Your task to perform on an android device: change the clock display to show seconds Image 0: 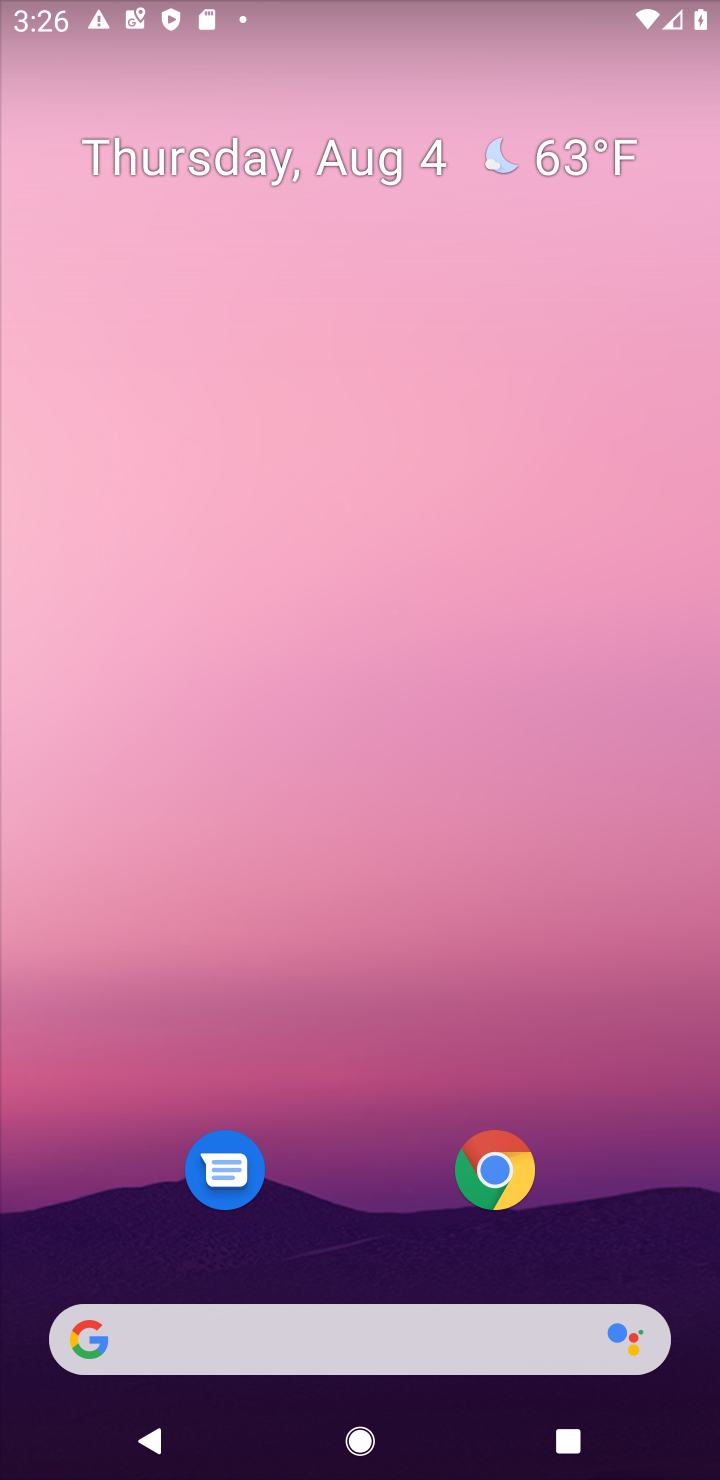
Step 0: drag from (604, 739) to (570, 265)
Your task to perform on an android device: change the clock display to show seconds Image 1: 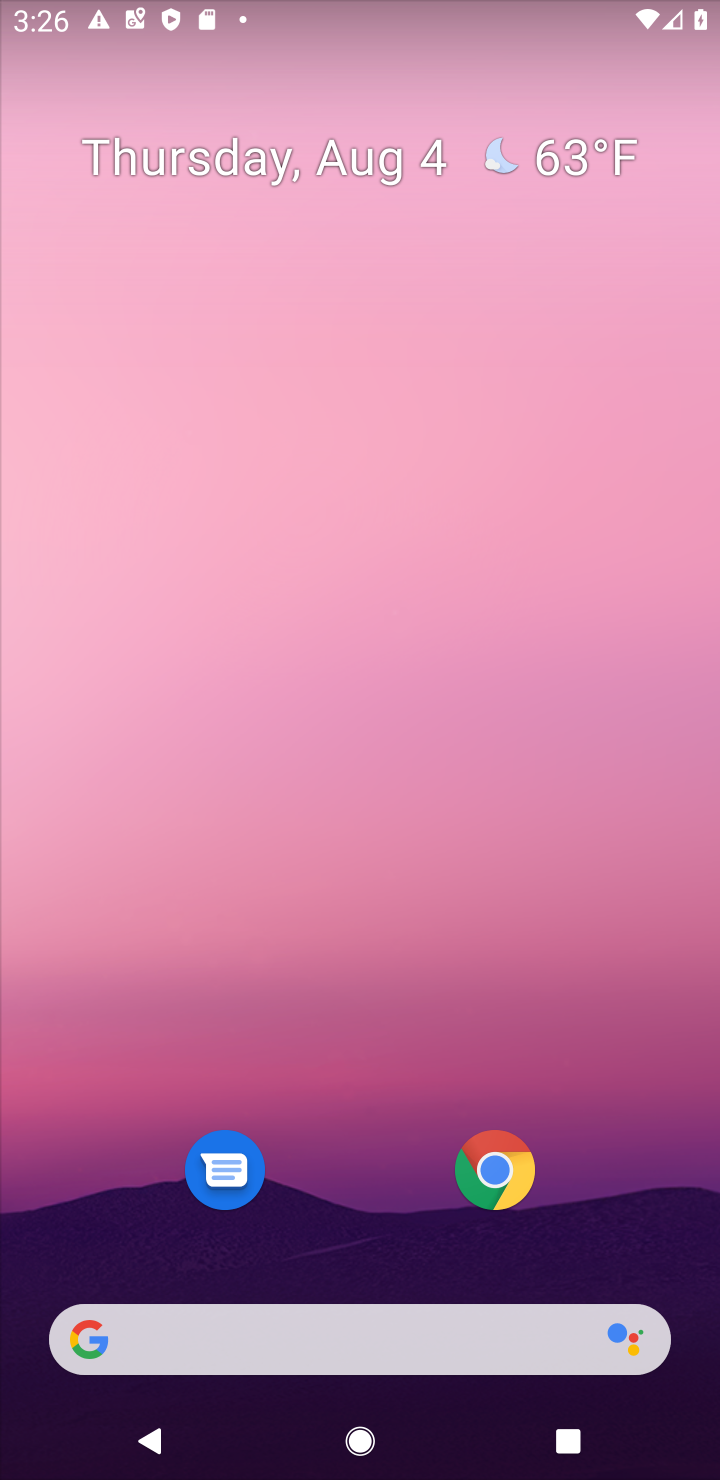
Step 1: drag from (628, 1142) to (604, 171)
Your task to perform on an android device: change the clock display to show seconds Image 2: 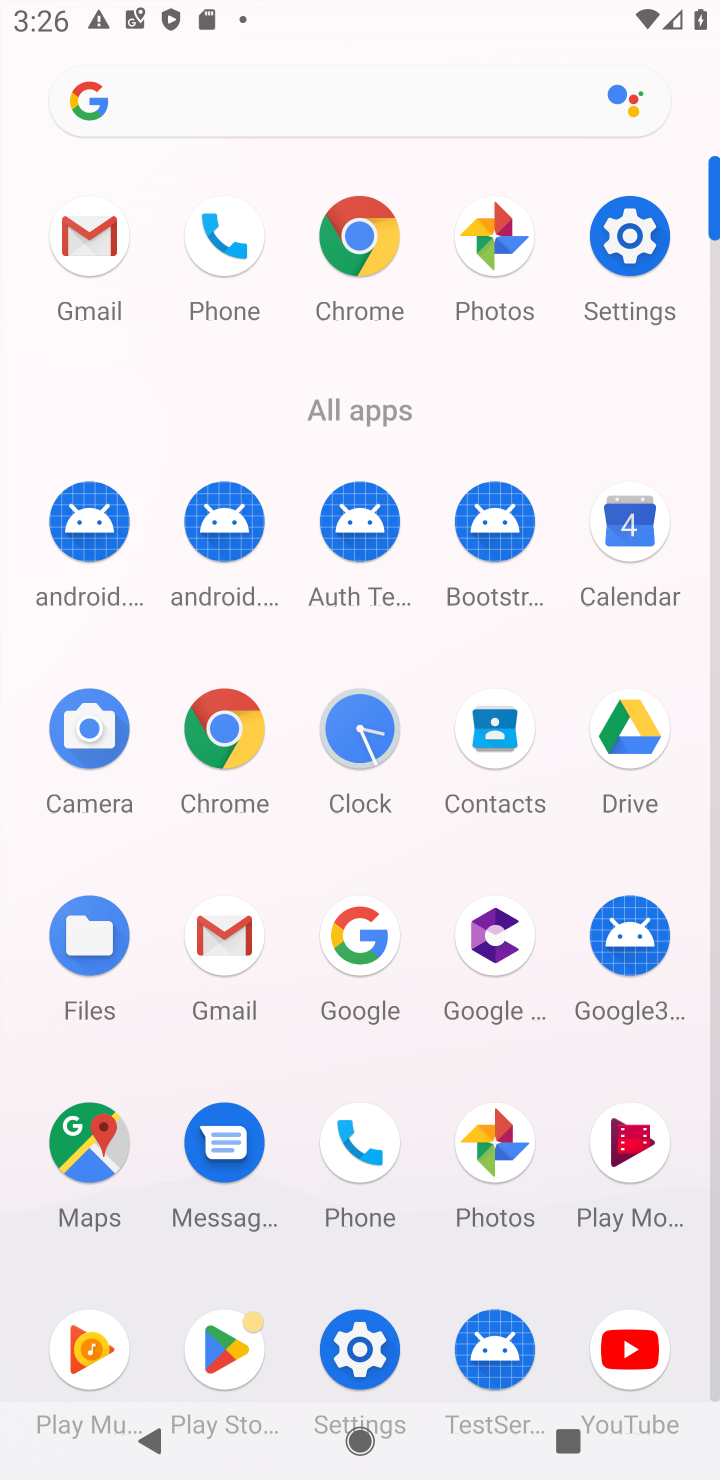
Step 2: click (358, 723)
Your task to perform on an android device: change the clock display to show seconds Image 3: 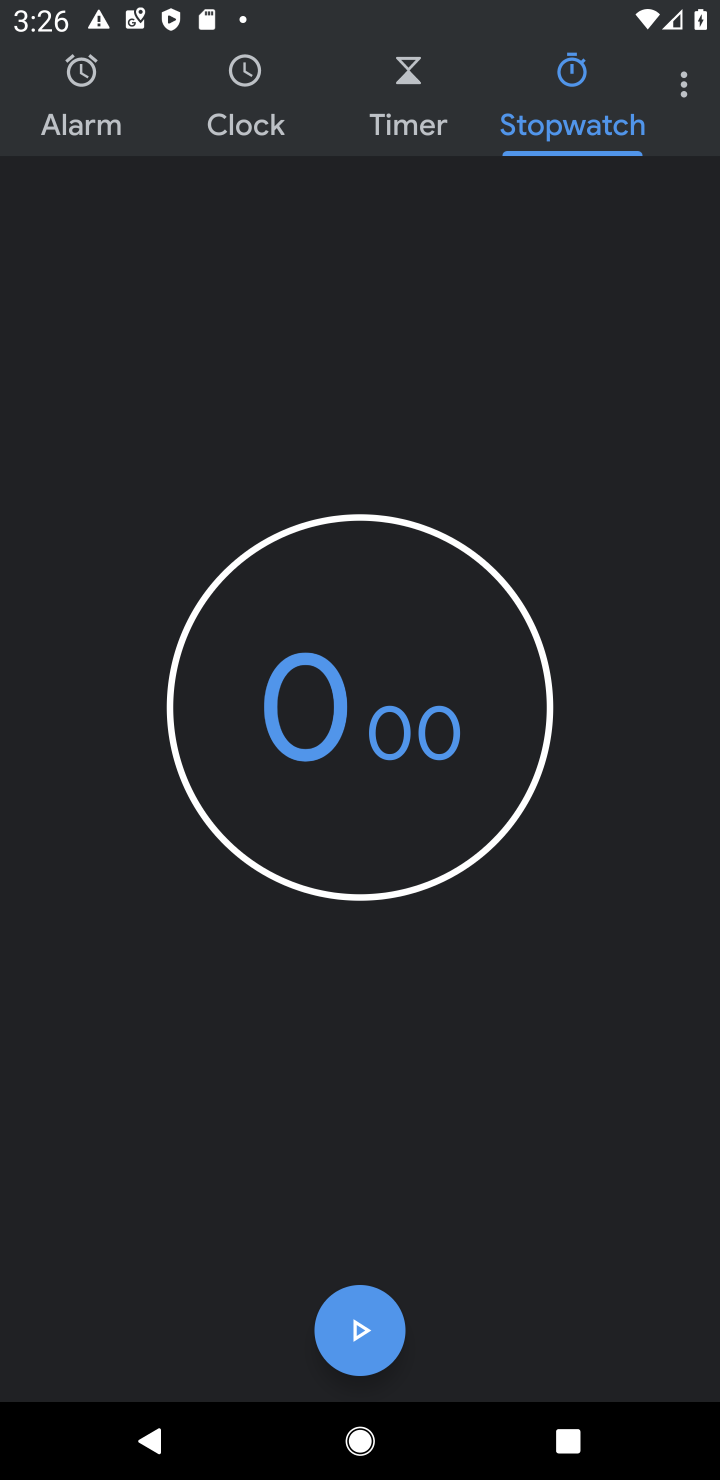
Step 3: click (673, 100)
Your task to perform on an android device: change the clock display to show seconds Image 4: 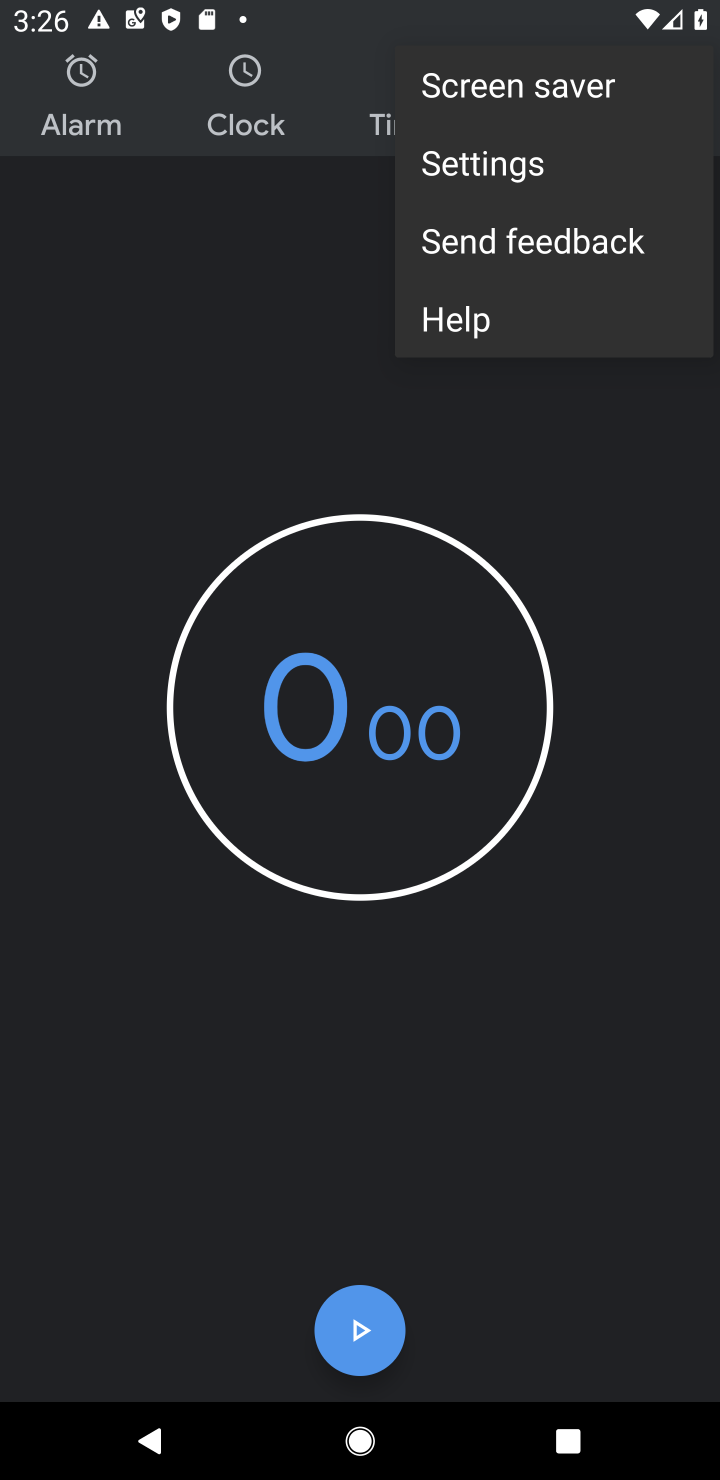
Step 4: click (492, 169)
Your task to perform on an android device: change the clock display to show seconds Image 5: 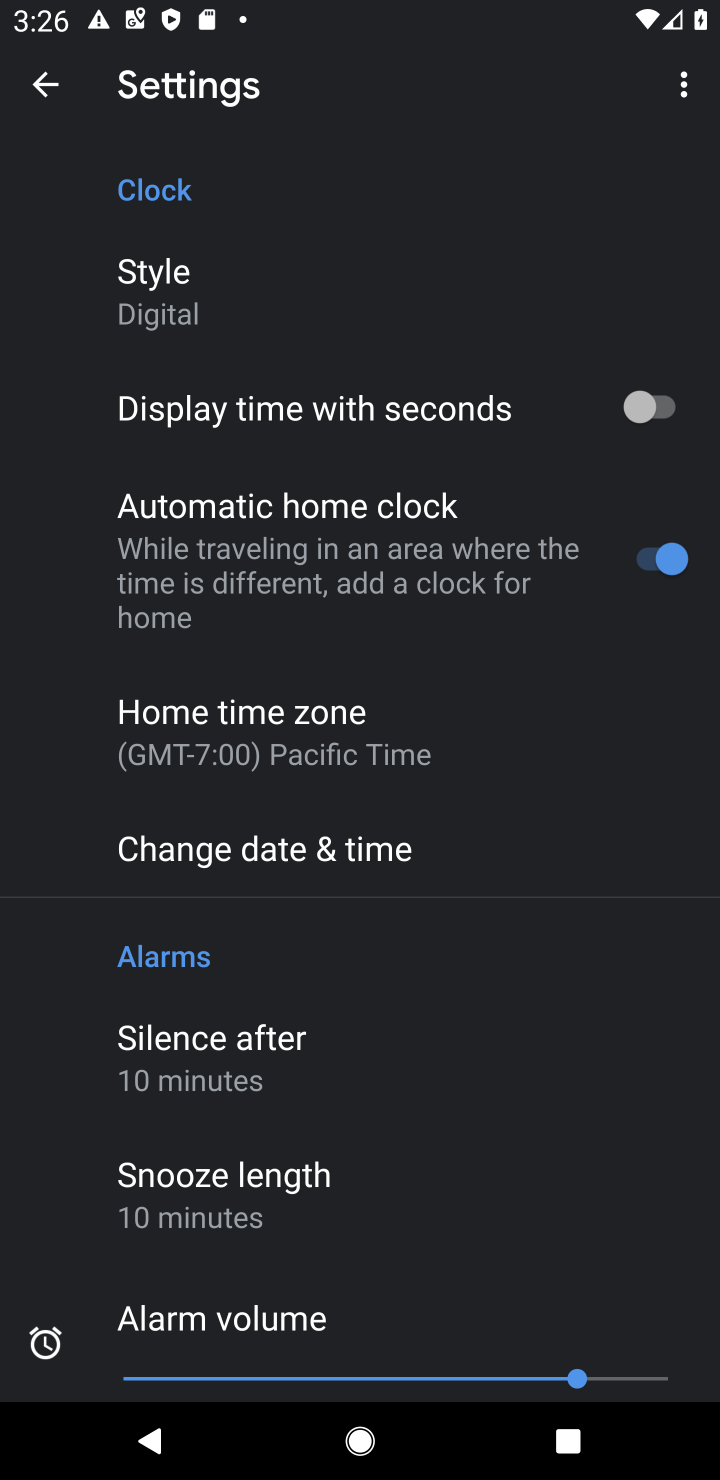
Step 5: click (655, 405)
Your task to perform on an android device: change the clock display to show seconds Image 6: 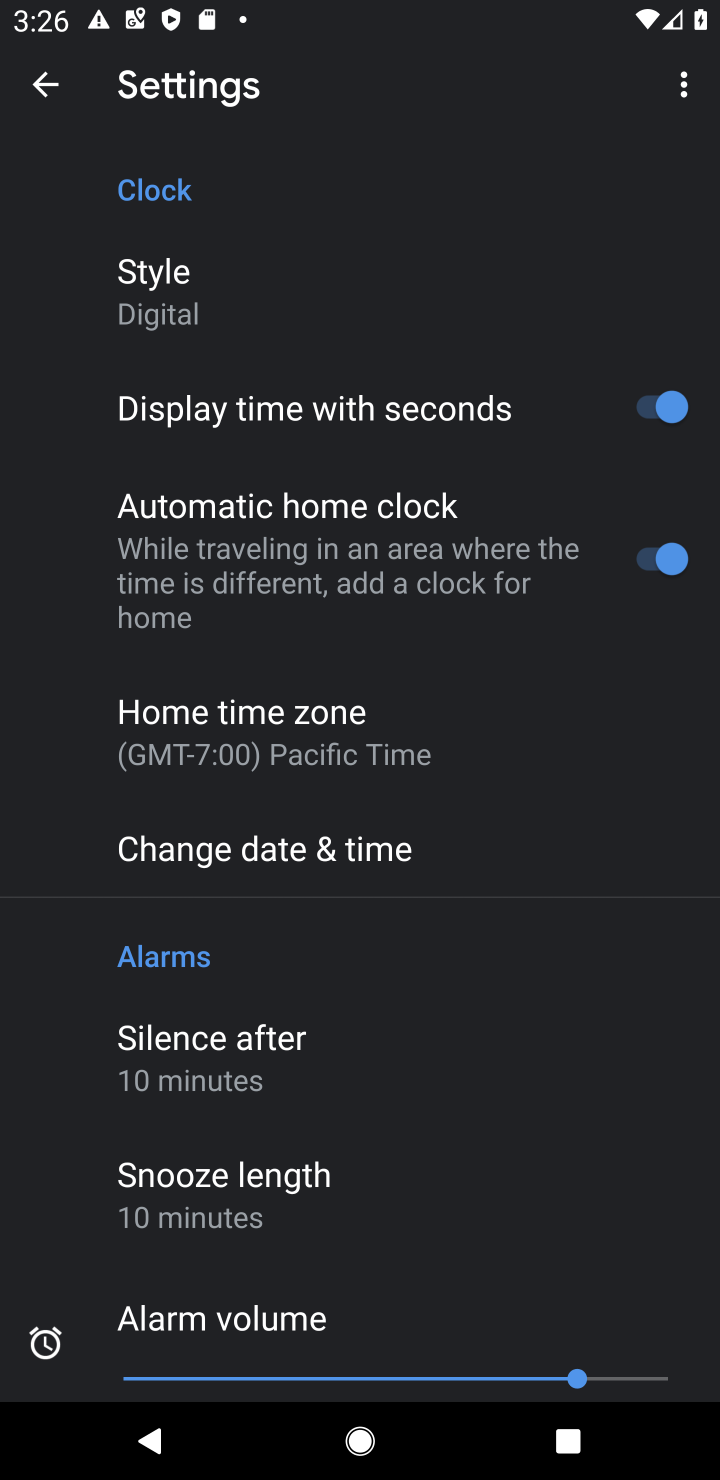
Step 6: task complete